Your task to perform on an android device: open app "PUBG MOBILE" (install if not already installed) and go to login screen Image 0: 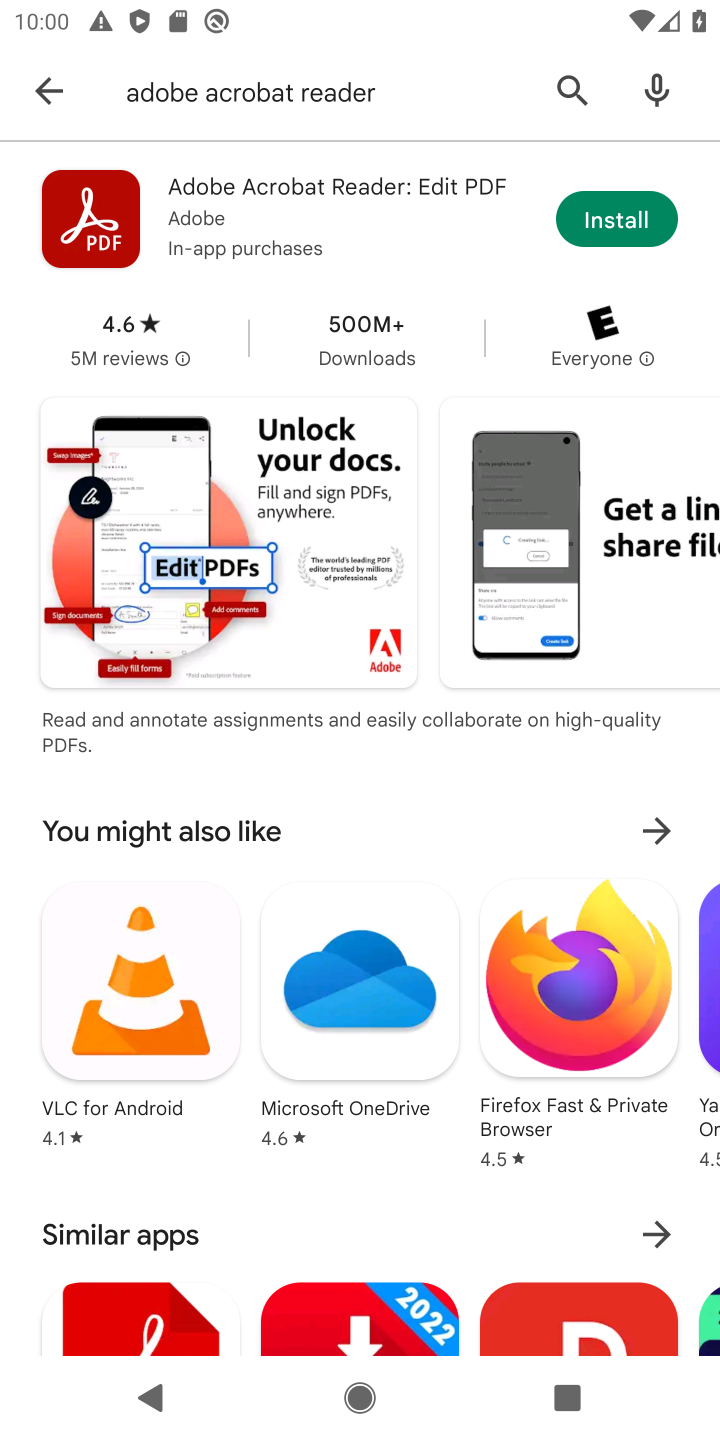
Step 0: press home button
Your task to perform on an android device: open app "PUBG MOBILE" (install if not already installed) and go to login screen Image 1: 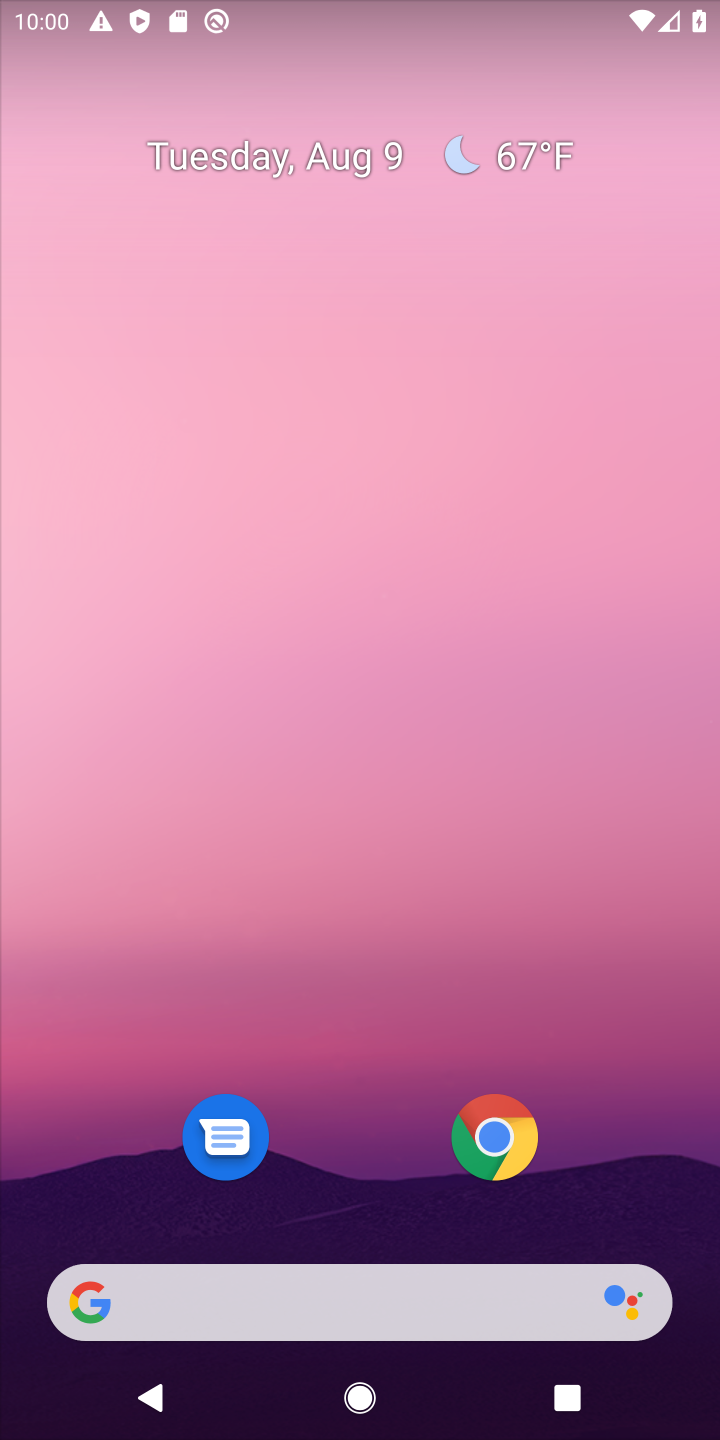
Step 1: drag from (550, 905) to (243, 79)
Your task to perform on an android device: open app "PUBG MOBILE" (install if not already installed) and go to login screen Image 2: 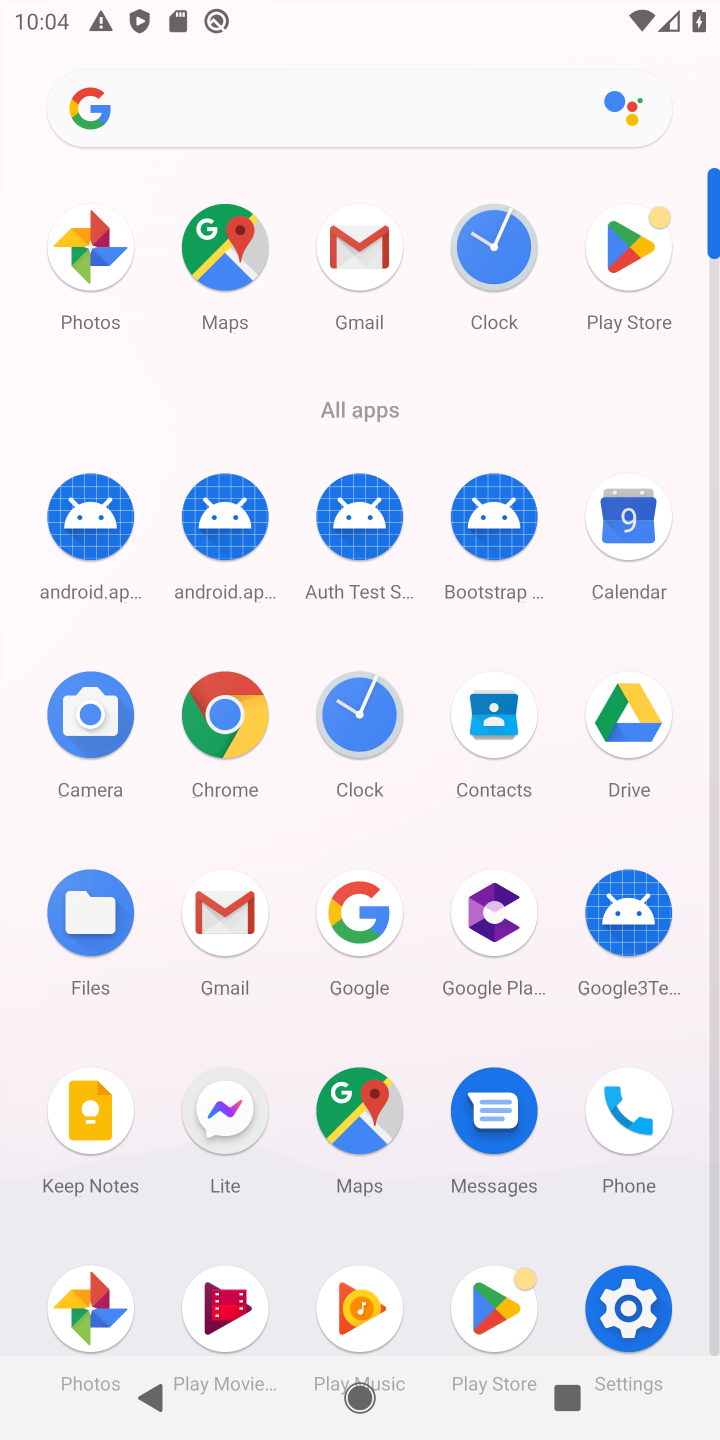
Step 2: click (663, 250)
Your task to perform on an android device: open app "PUBG MOBILE" (install if not already installed) and go to login screen Image 3: 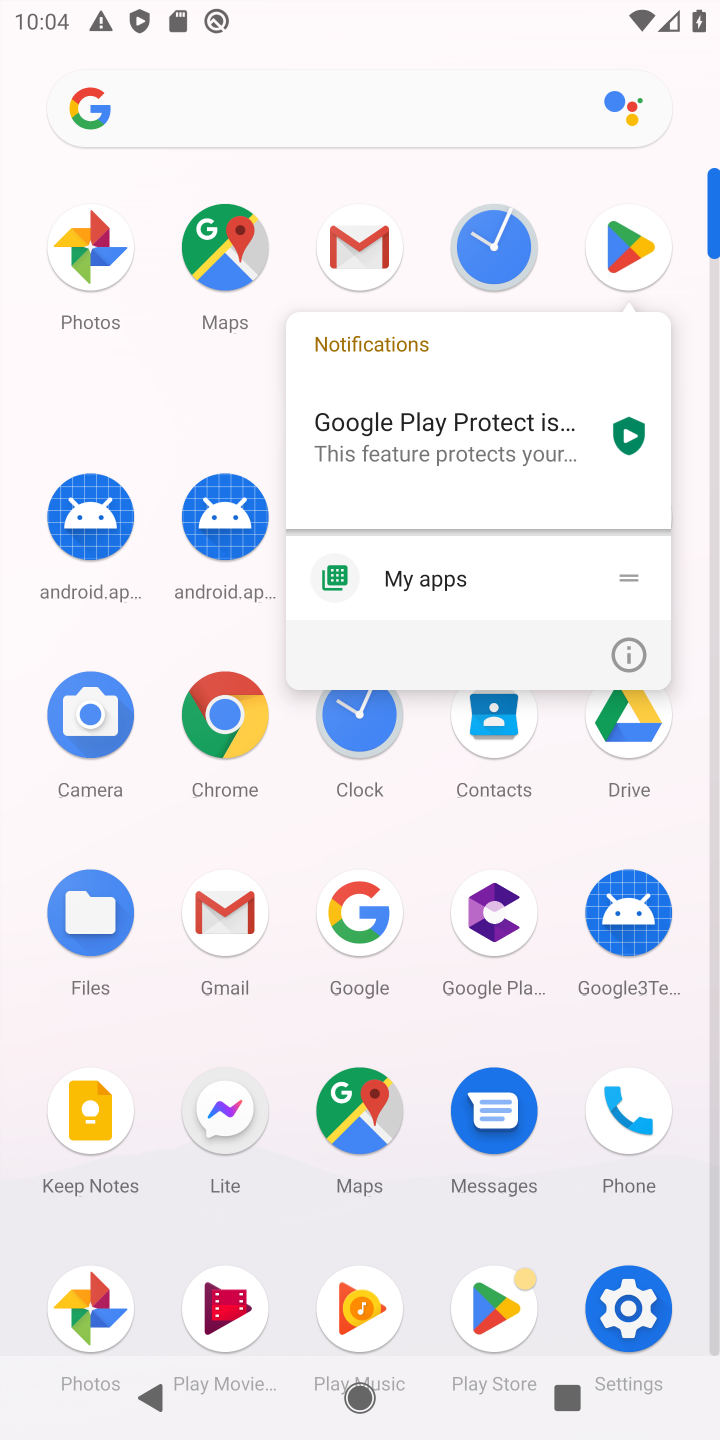
Step 3: click (662, 245)
Your task to perform on an android device: open app "PUBG MOBILE" (install if not already installed) and go to login screen Image 4: 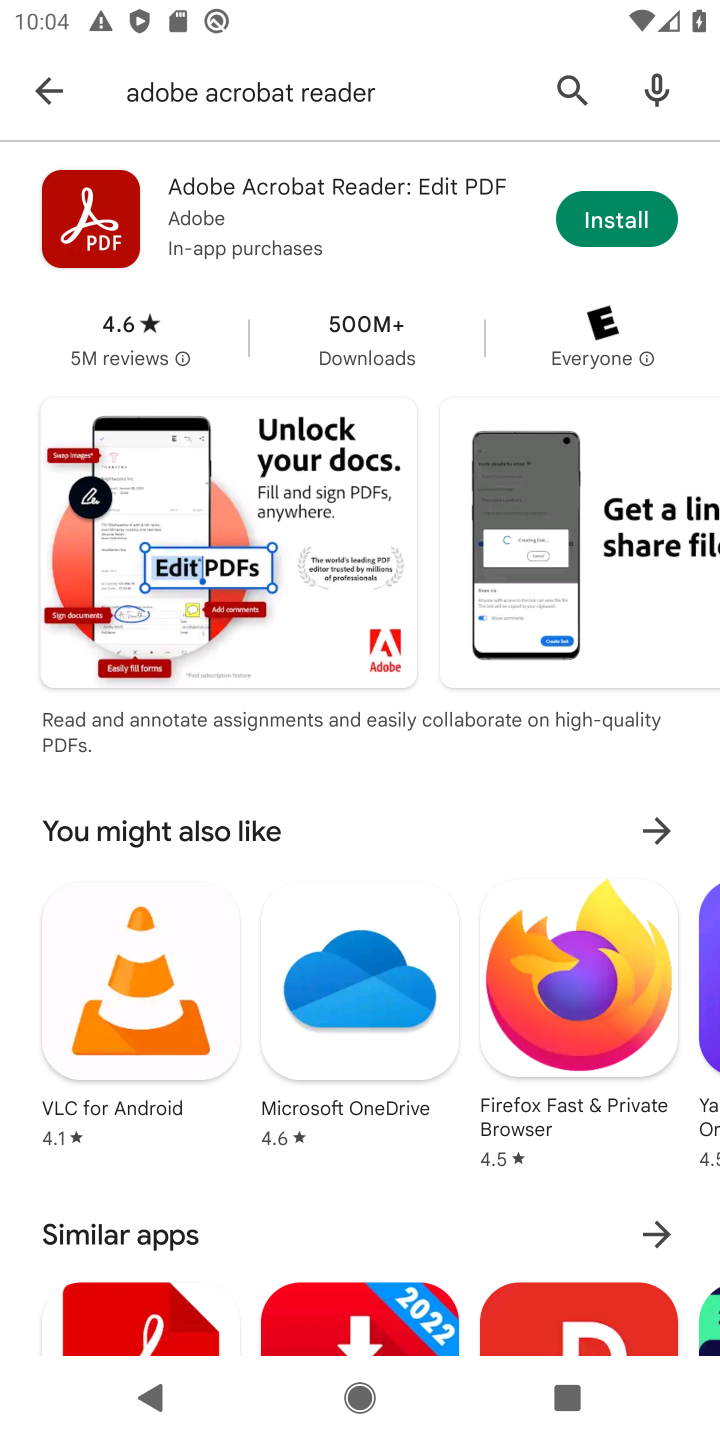
Step 4: press back button
Your task to perform on an android device: open app "PUBG MOBILE" (install if not already installed) and go to login screen Image 5: 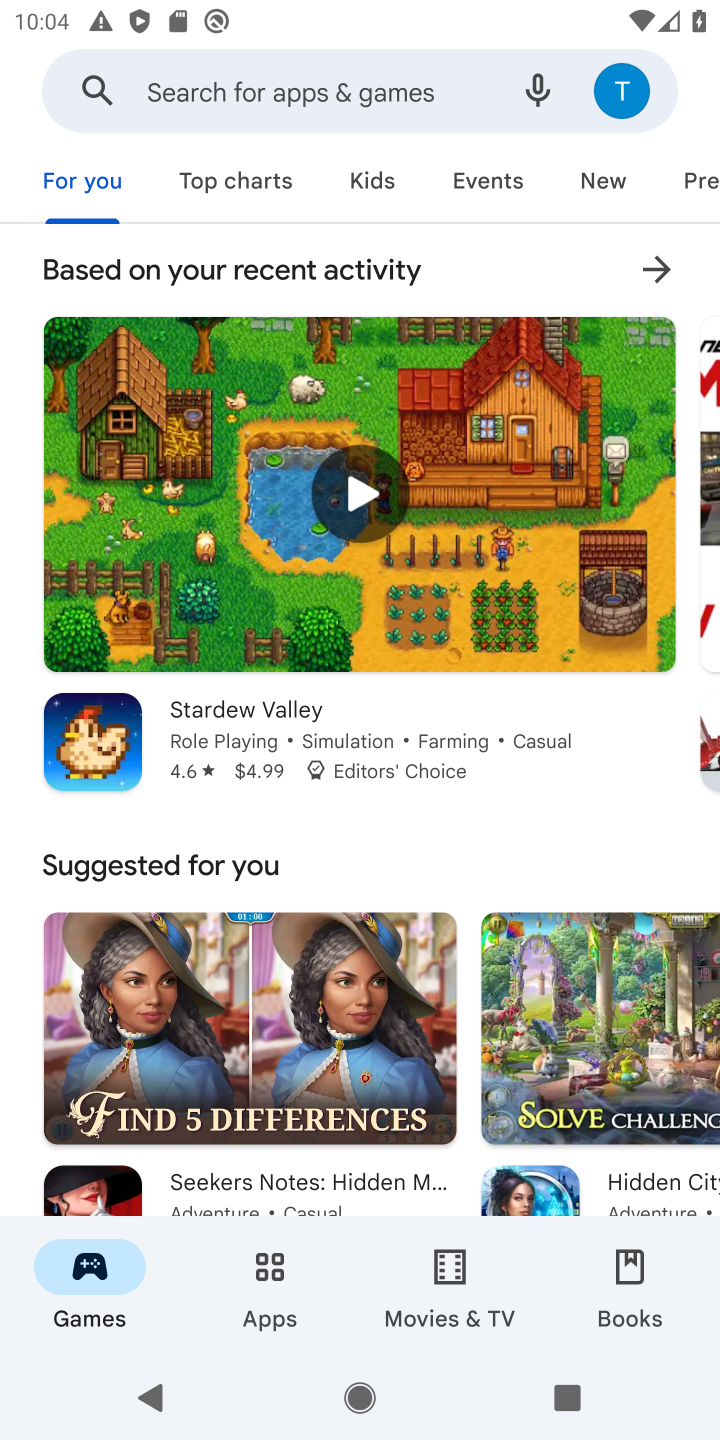
Step 5: click (182, 86)
Your task to perform on an android device: open app "PUBG MOBILE" (install if not already installed) and go to login screen Image 6: 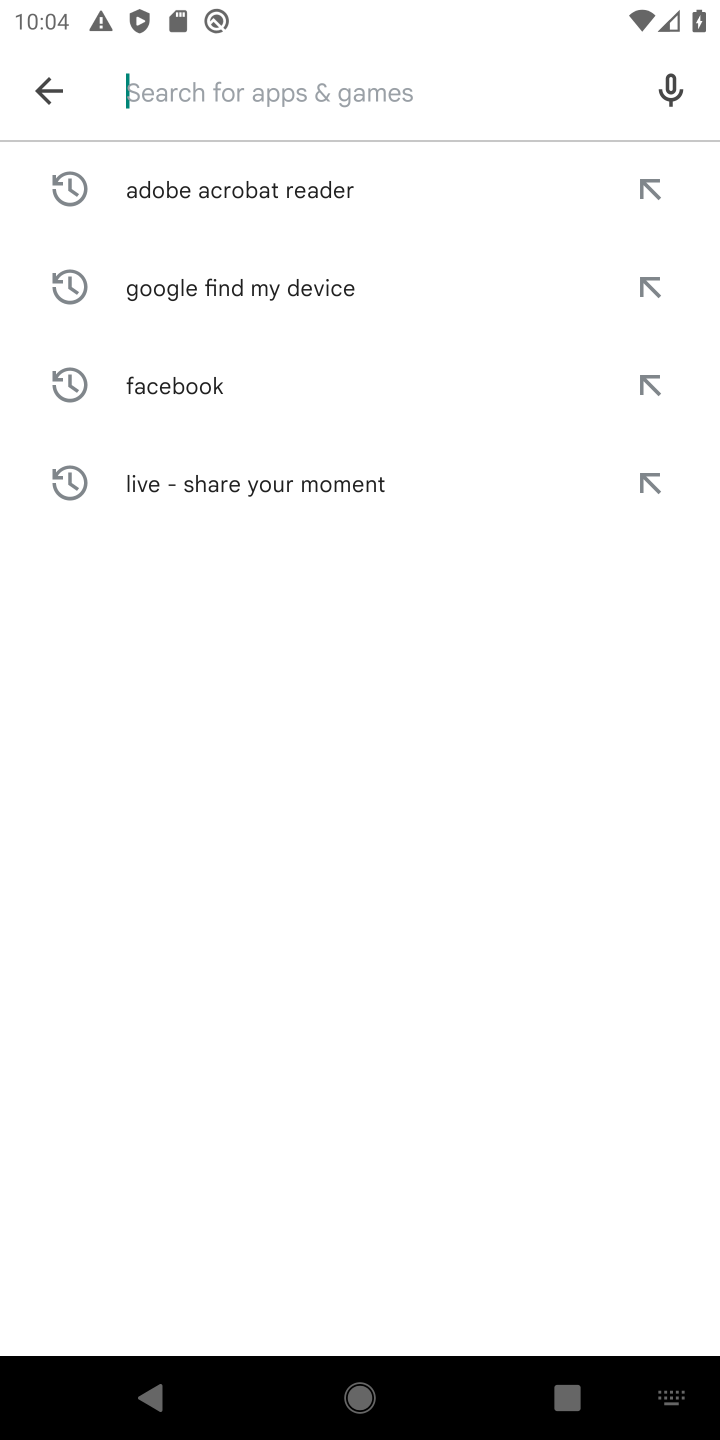
Step 6: type "PUBG MOBILE"
Your task to perform on an android device: open app "PUBG MOBILE" (install if not already installed) and go to login screen Image 7: 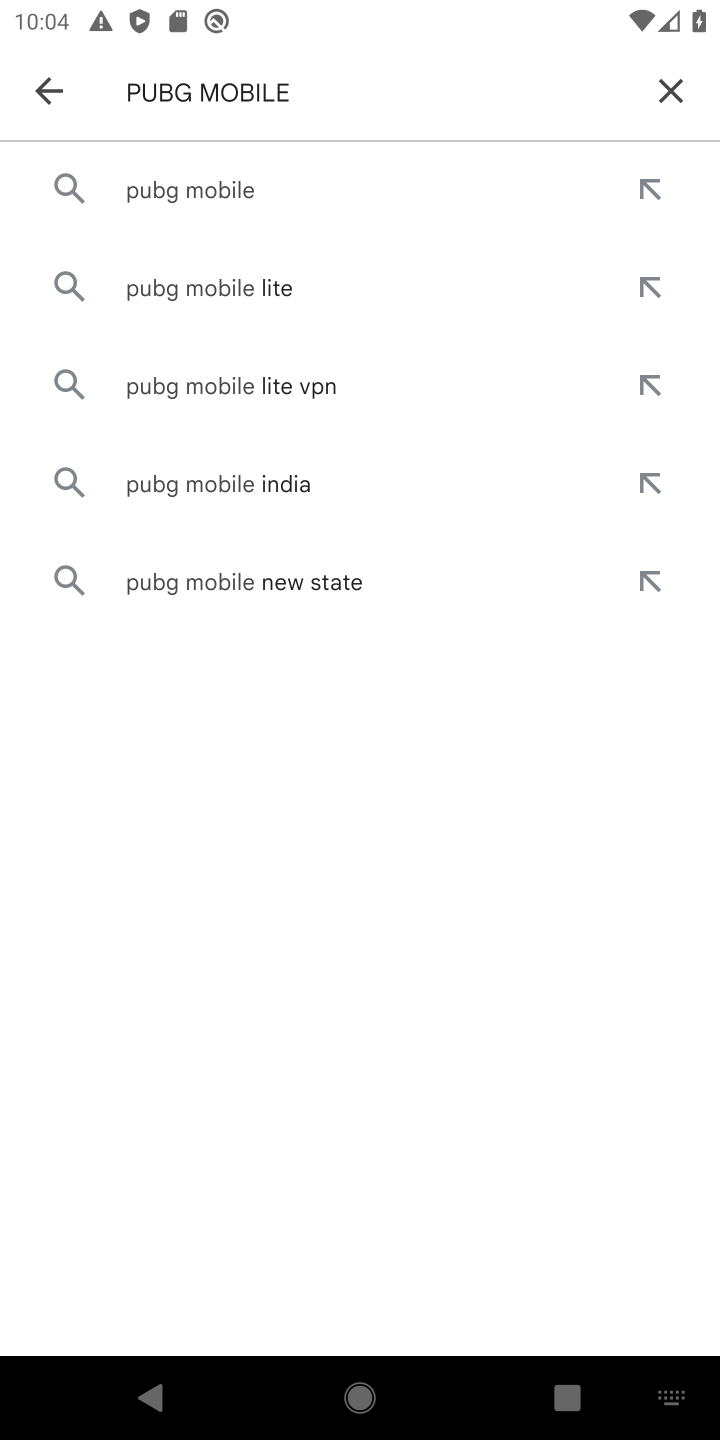
Step 7: click (218, 213)
Your task to perform on an android device: open app "PUBG MOBILE" (install if not already installed) and go to login screen Image 8: 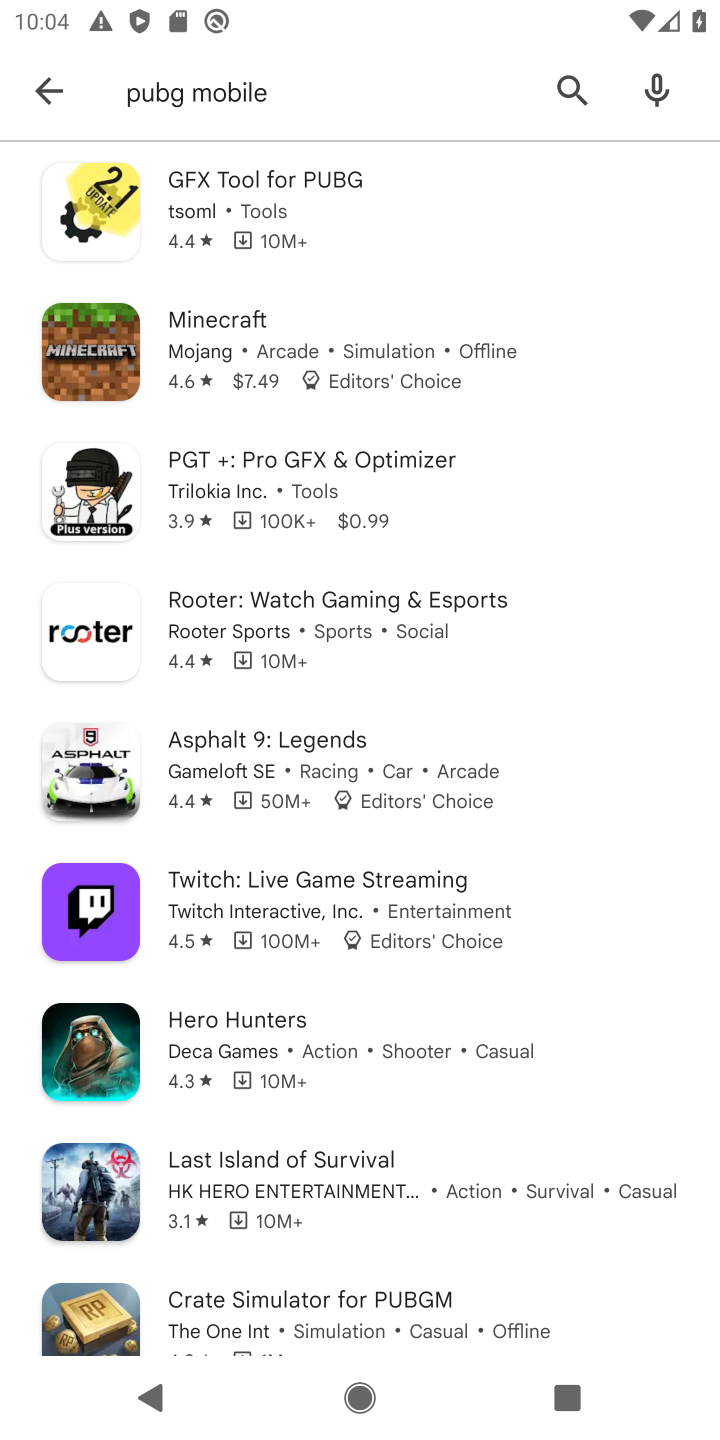
Step 8: task complete